Your task to perform on an android device: Find coffee shops on Maps Image 0: 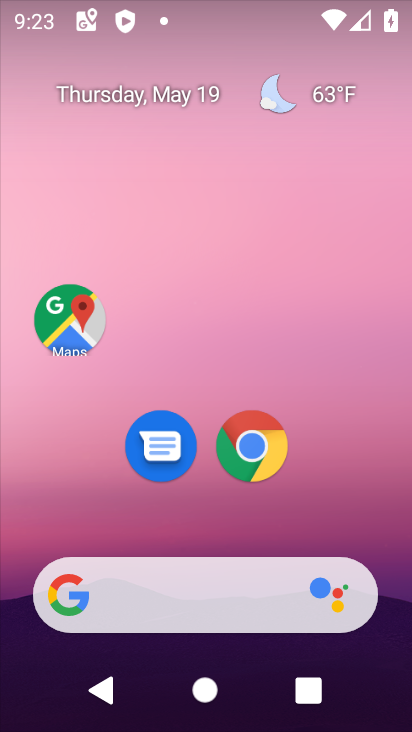
Step 0: click (75, 332)
Your task to perform on an android device: Find coffee shops on Maps Image 1: 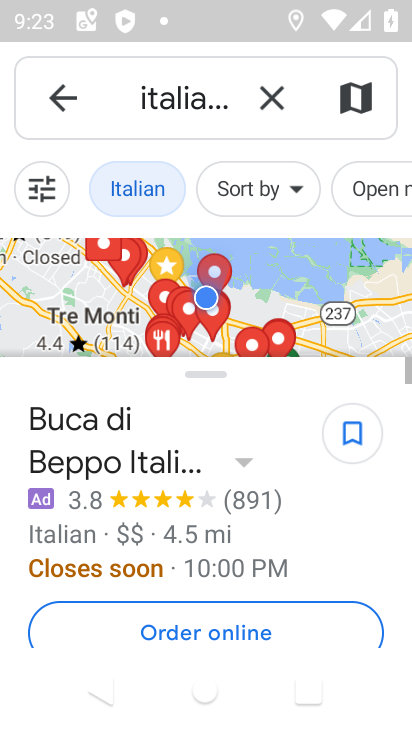
Step 1: click (262, 98)
Your task to perform on an android device: Find coffee shops on Maps Image 2: 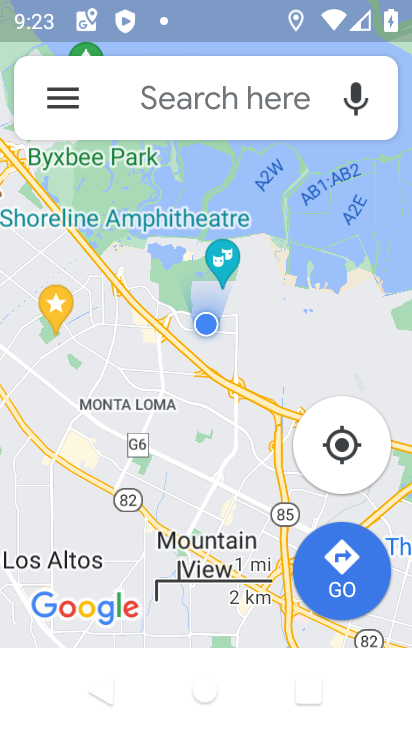
Step 2: click (176, 101)
Your task to perform on an android device: Find coffee shops on Maps Image 3: 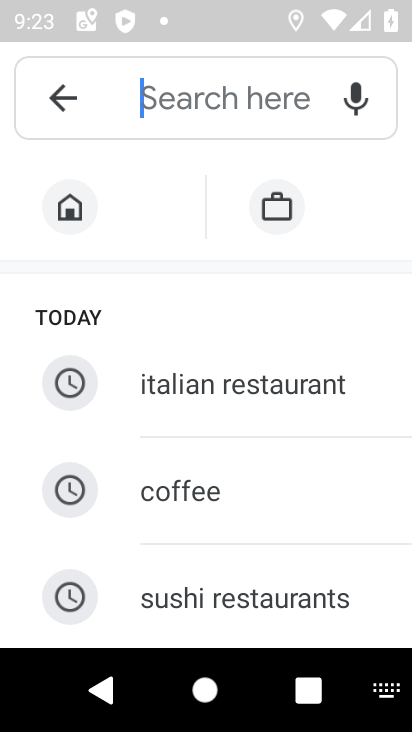
Step 3: type "coffee shops"
Your task to perform on an android device: Find coffee shops on Maps Image 4: 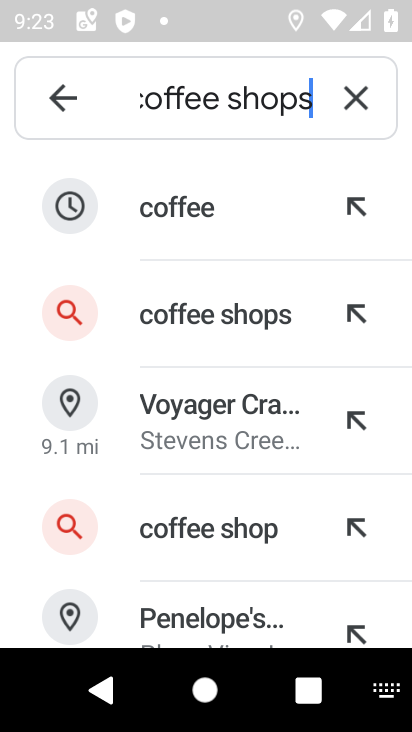
Step 4: click (218, 321)
Your task to perform on an android device: Find coffee shops on Maps Image 5: 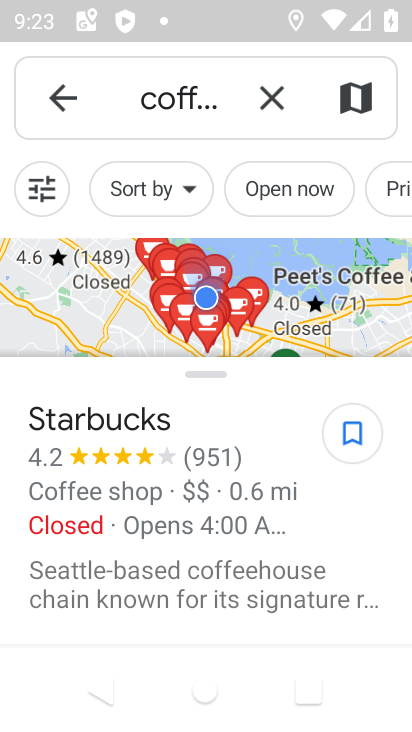
Step 5: task complete